Your task to perform on an android device: remove spam from my inbox in the gmail app Image 0: 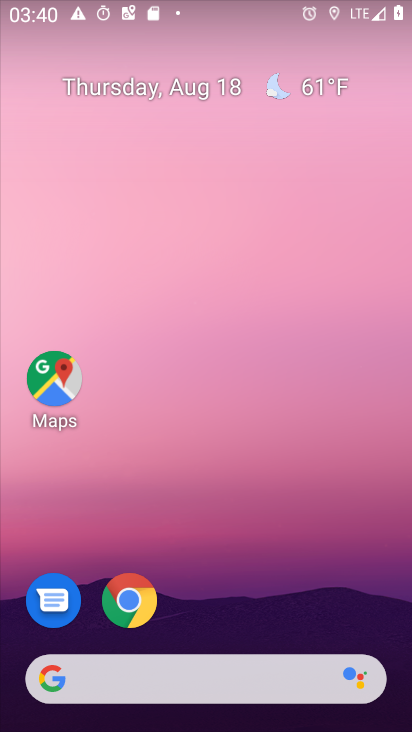
Step 0: press home button
Your task to perform on an android device: remove spam from my inbox in the gmail app Image 1: 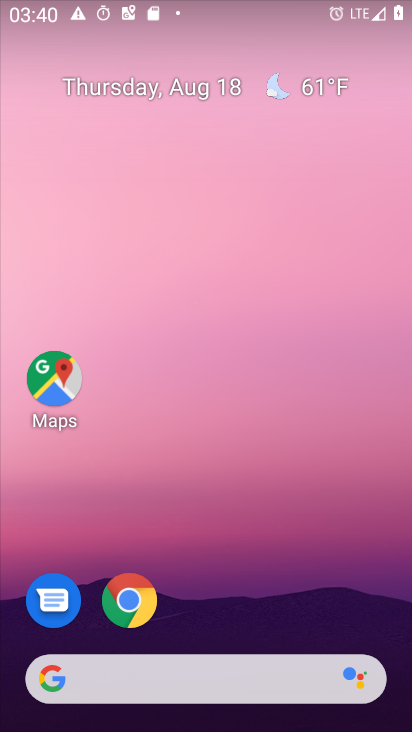
Step 1: drag from (225, 621) to (242, 20)
Your task to perform on an android device: remove spam from my inbox in the gmail app Image 2: 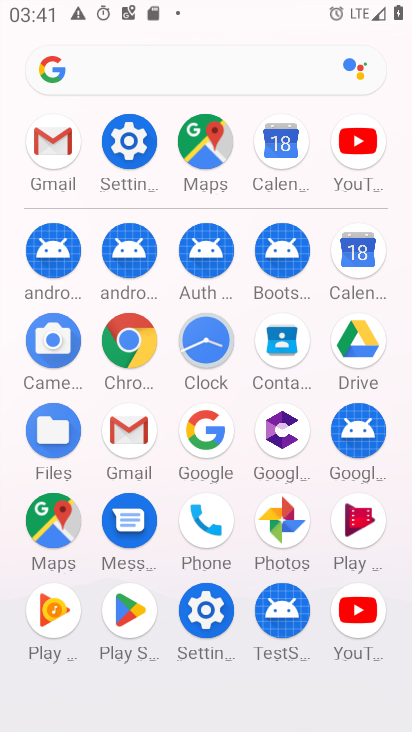
Step 2: click (44, 156)
Your task to perform on an android device: remove spam from my inbox in the gmail app Image 3: 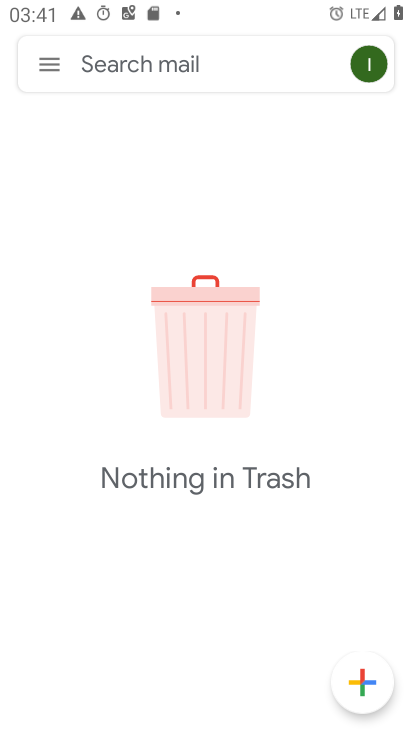
Step 3: click (36, 73)
Your task to perform on an android device: remove spam from my inbox in the gmail app Image 4: 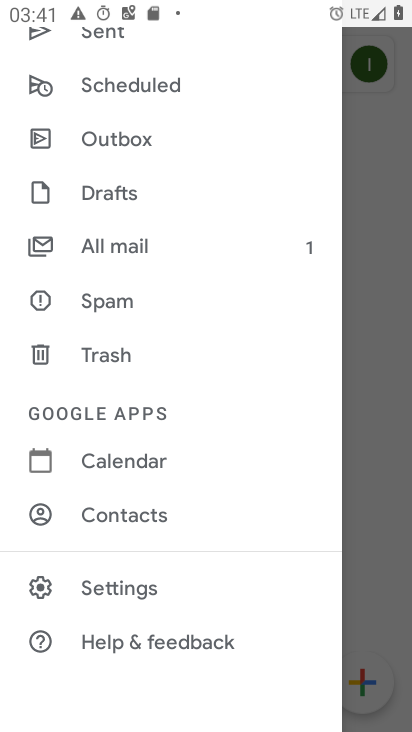
Step 4: click (104, 307)
Your task to perform on an android device: remove spam from my inbox in the gmail app Image 5: 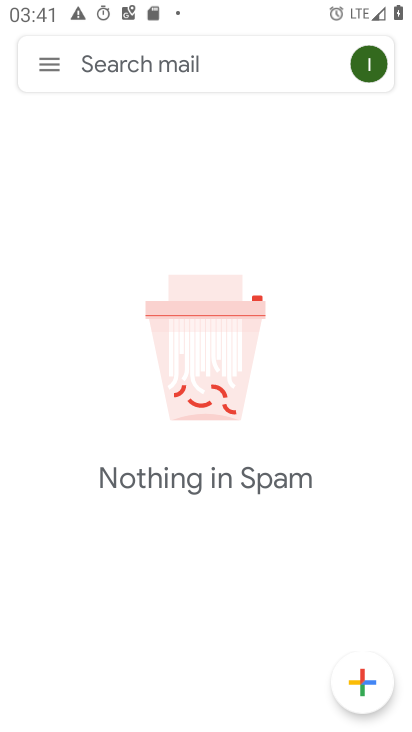
Step 5: task complete